Your task to perform on an android device: turn off smart reply in the gmail app Image 0: 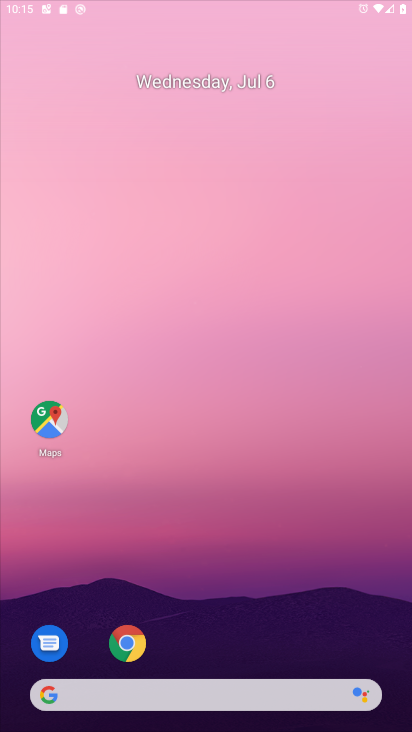
Step 0: drag from (185, 623) to (189, 165)
Your task to perform on an android device: turn off smart reply in the gmail app Image 1: 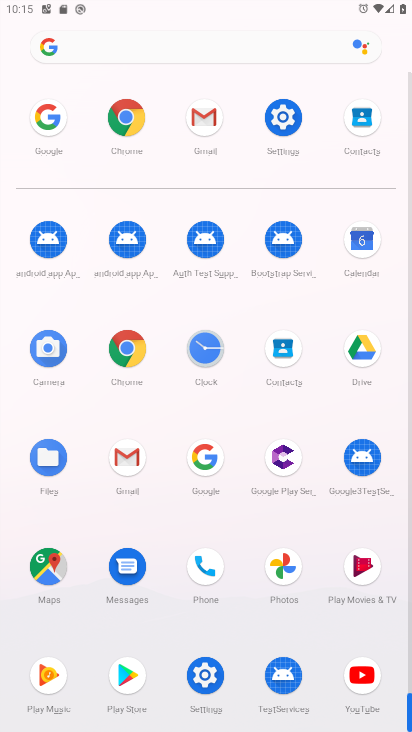
Step 1: click (129, 477)
Your task to perform on an android device: turn off smart reply in the gmail app Image 2: 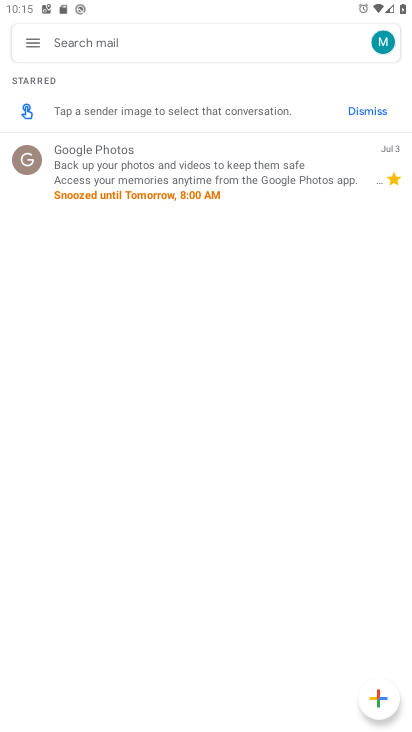
Step 2: click (35, 50)
Your task to perform on an android device: turn off smart reply in the gmail app Image 3: 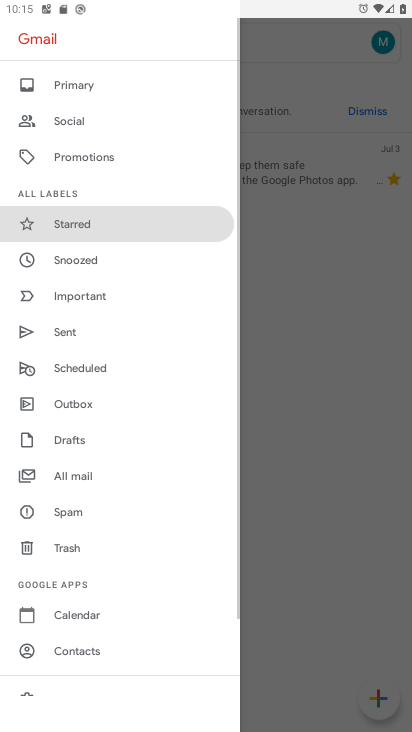
Step 3: drag from (77, 638) to (169, 218)
Your task to perform on an android device: turn off smart reply in the gmail app Image 4: 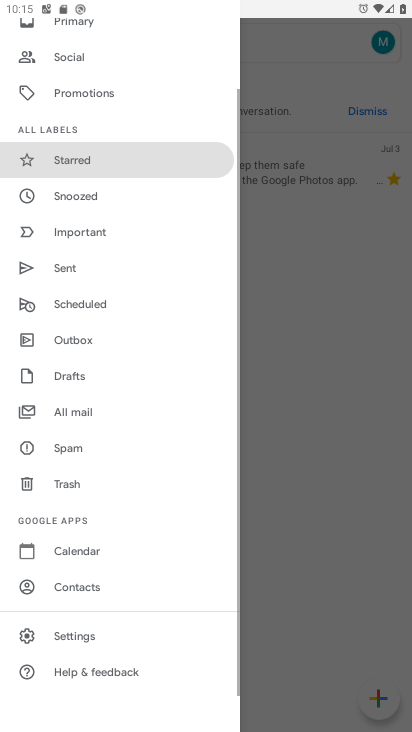
Step 4: click (98, 645)
Your task to perform on an android device: turn off smart reply in the gmail app Image 5: 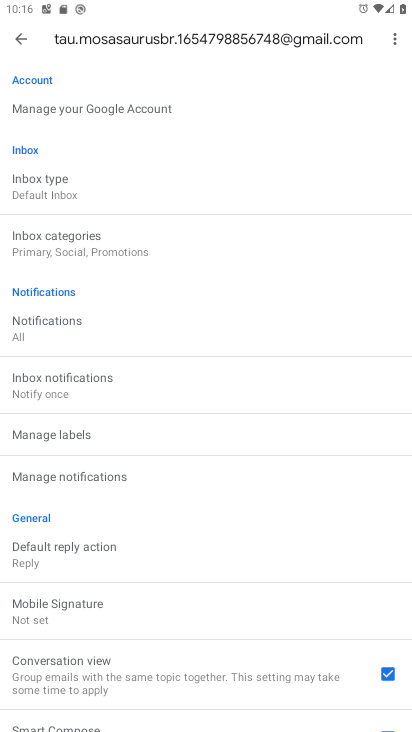
Step 5: drag from (109, 504) to (149, 137)
Your task to perform on an android device: turn off smart reply in the gmail app Image 6: 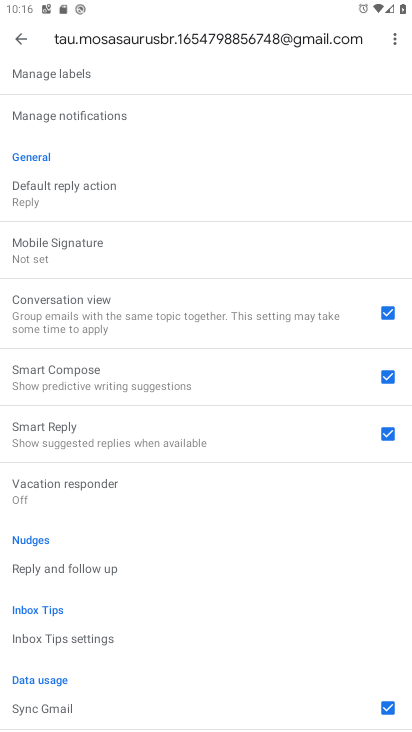
Step 6: click (393, 436)
Your task to perform on an android device: turn off smart reply in the gmail app Image 7: 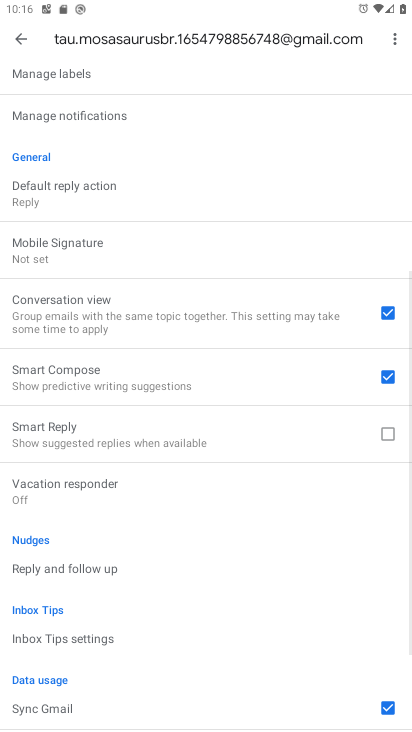
Step 7: task complete